Your task to perform on an android device: What's the weather? Image 0: 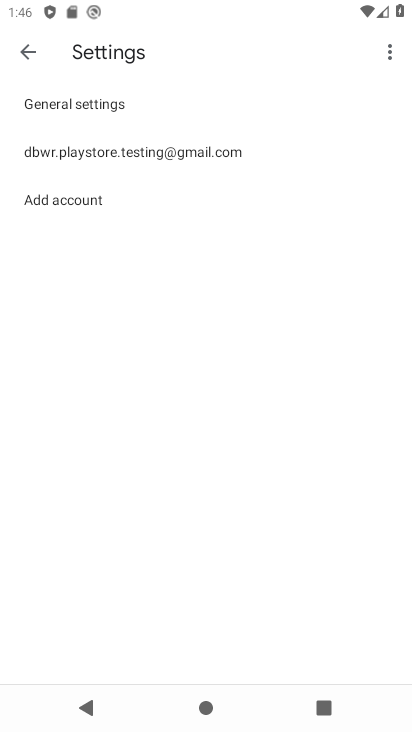
Step 0: press home button
Your task to perform on an android device: What's the weather? Image 1: 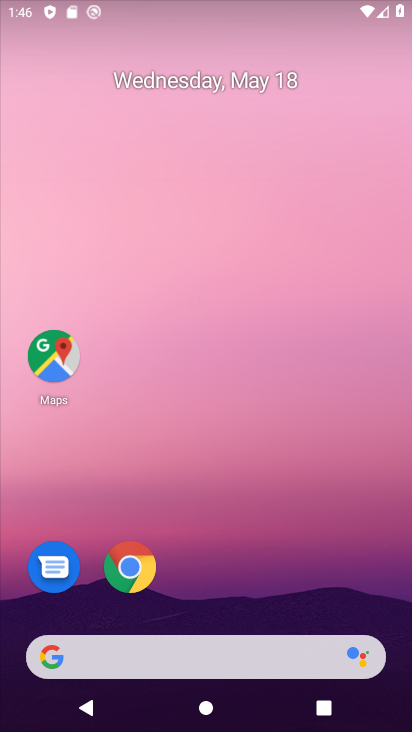
Step 1: drag from (214, 485) to (215, 279)
Your task to perform on an android device: What's the weather? Image 2: 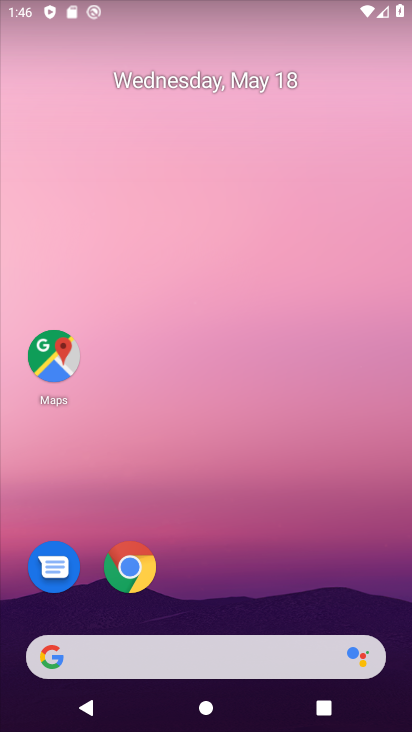
Step 2: drag from (242, 374) to (253, 205)
Your task to perform on an android device: What's the weather? Image 3: 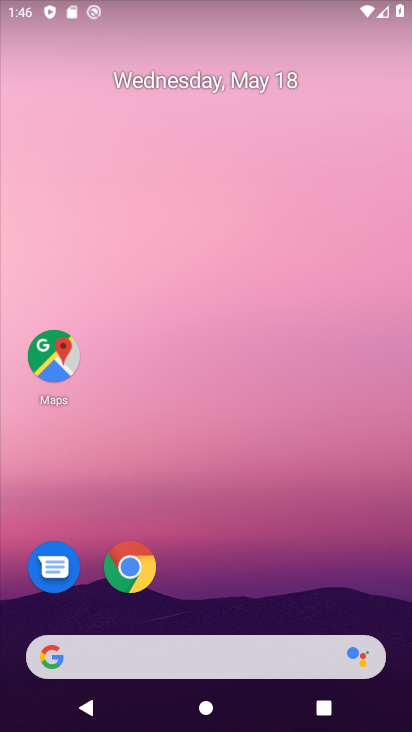
Step 3: drag from (255, 564) to (231, 239)
Your task to perform on an android device: What's the weather? Image 4: 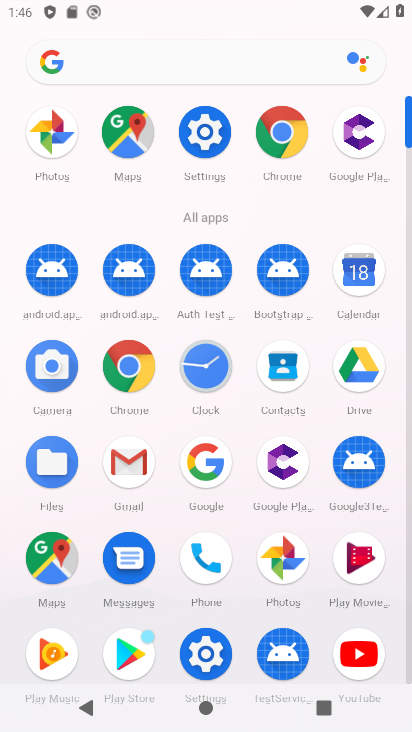
Step 4: click (257, 134)
Your task to perform on an android device: What's the weather? Image 5: 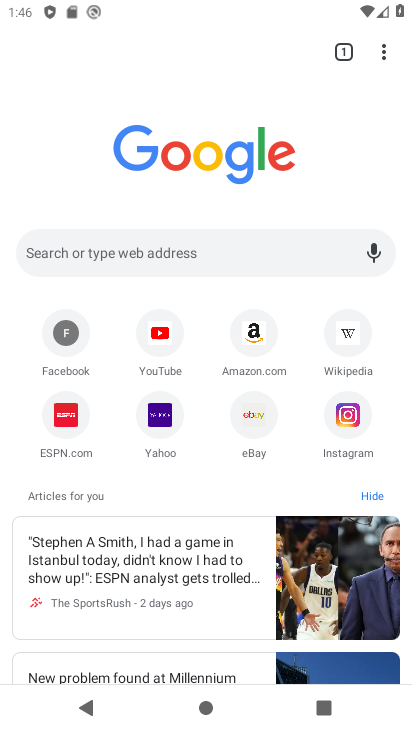
Step 5: click (231, 254)
Your task to perform on an android device: What's the weather? Image 6: 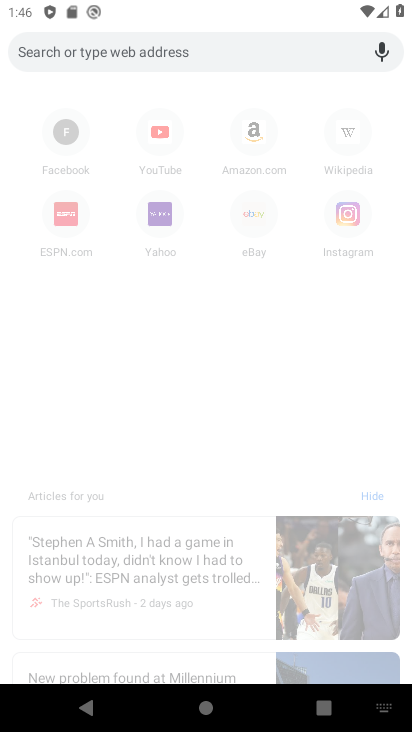
Step 6: type "What's the weather?"
Your task to perform on an android device: What's the weather? Image 7: 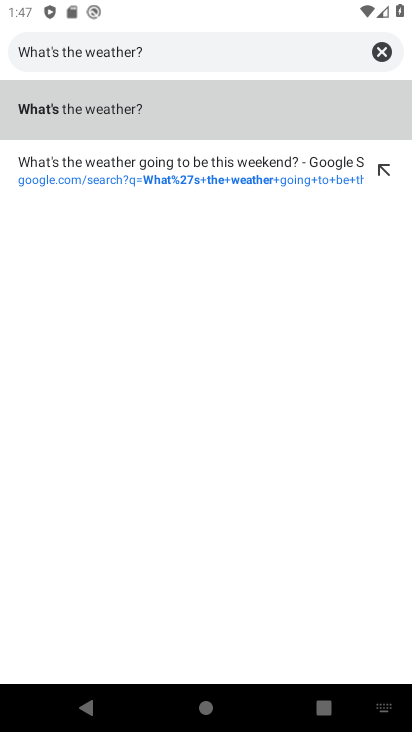
Step 7: click (191, 96)
Your task to perform on an android device: What's the weather? Image 8: 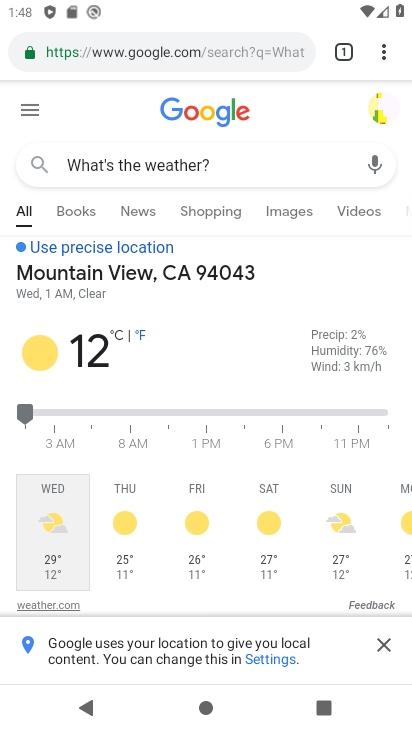
Step 8: task complete